Your task to perform on an android device: turn off location Image 0: 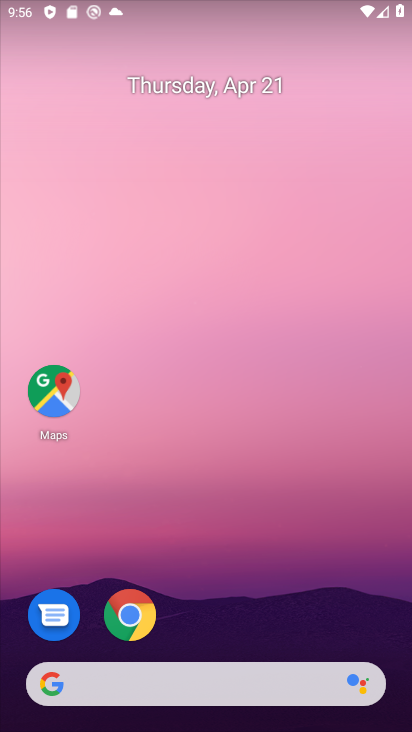
Step 0: drag from (219, 622) to (229, 111)
Your task to perform on an android device: turn off location Image 1: 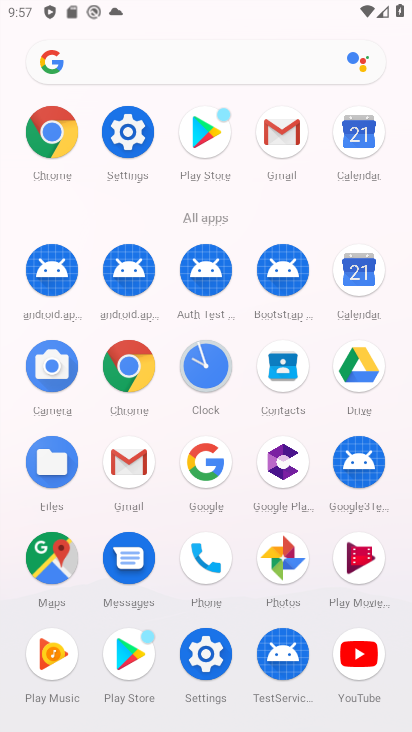
Step 1: click (128, 130)
Your task to perform on an android device: turn off location Image 2: 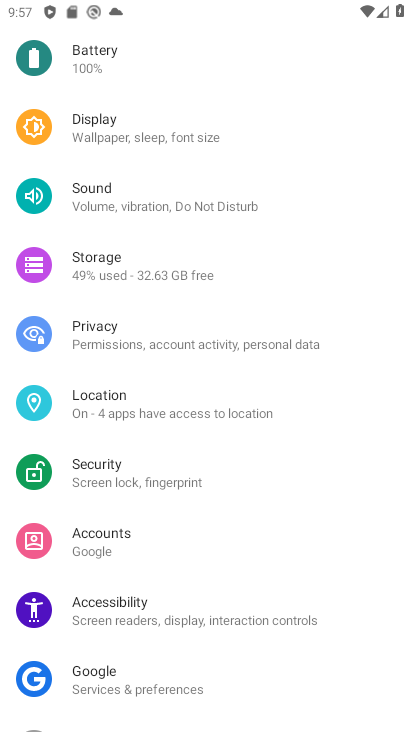
Step 2: click (138, 391)
Your task to perform on an android device: turn off location Image 3: 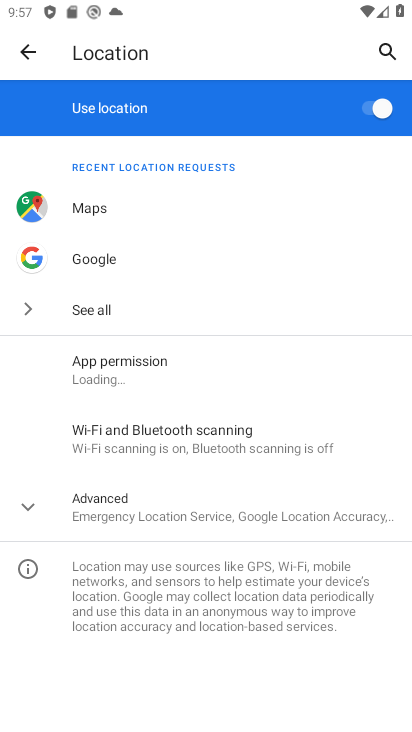
Step 3: click (371, 105)
Your task to perform on an android device: turn off location Image 4: 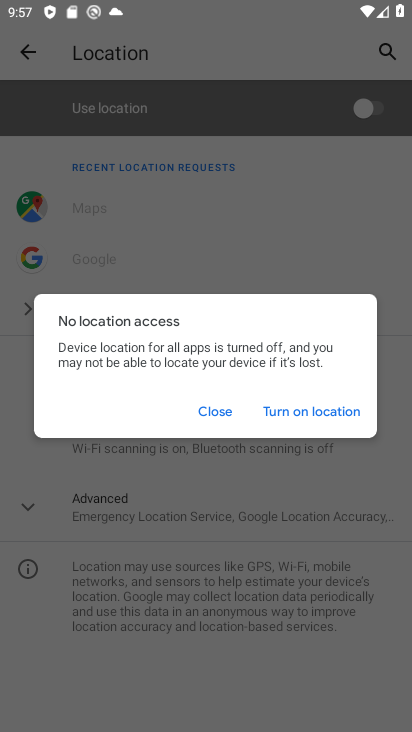
Step 4: click (216, 408)
Your task to perform on an android device: turn off location Image 5: 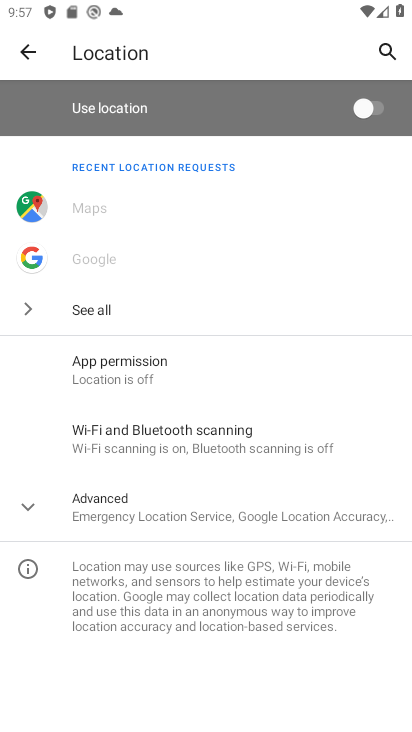
Step 5: task complete